Your task to perform on an android device: Open Google Maps Image 0: 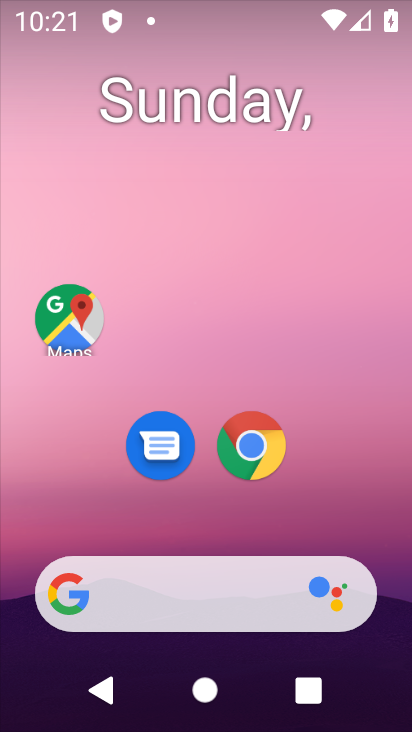
Step 0: drag from (214, 406) to (296, 4)
Your task to perform on an android device: Open Google Maps Image 1: 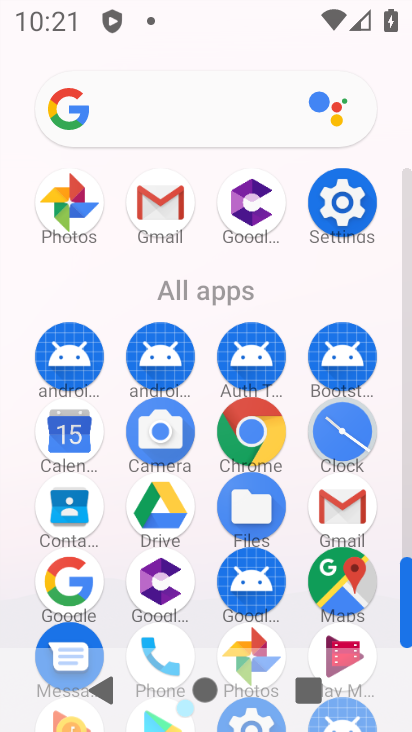
Step 1: click (347, 570)
Your task to perform on an android device: Open Google Maps Image 2: 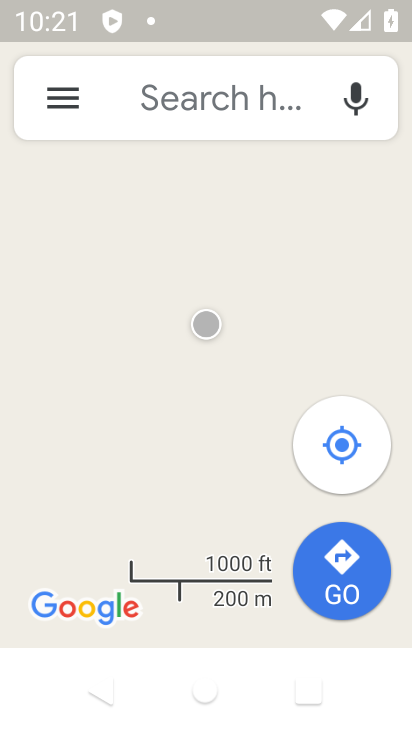
Step 2: task complete